Your task to perform on an android device: Open calendar and show me the second week of next month Image 0: 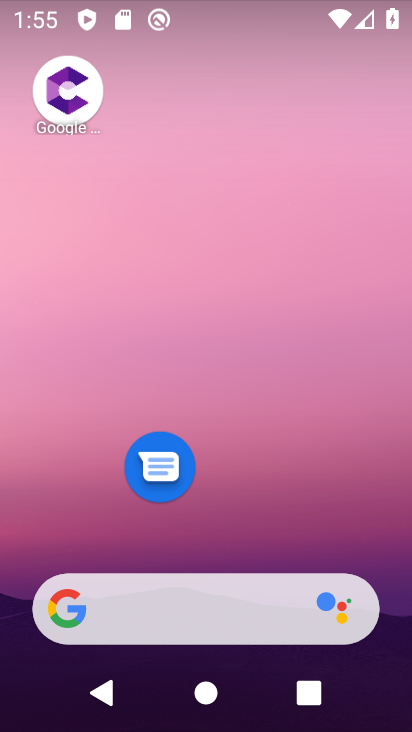
Step 0: drag from (250, 534) to (229, 12)
Your task to perform on an android device: Open calendar and show me the second week of next month Image 1: 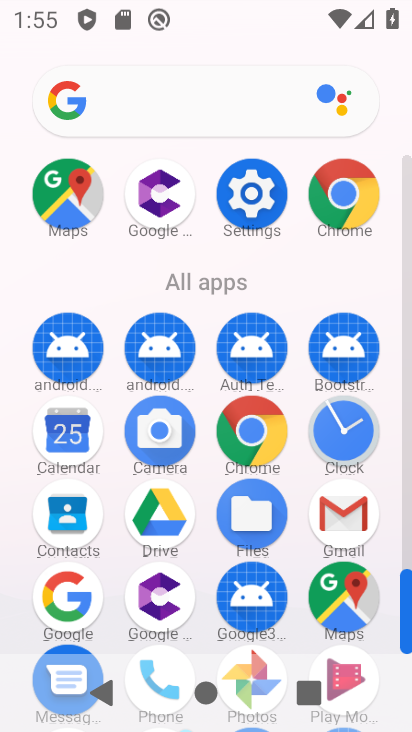
Step 1: click (68, 439)
Your task to perform on an android device: Open calendar and show me the second week of next month Image 2: 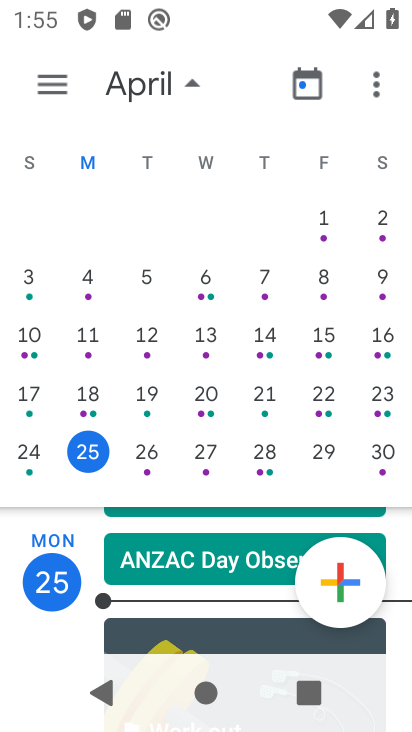
Step 2: drag from (365, 348) to (12, 400)
Your task to perform on an android device: Open calendar and show me the second week of next month Image 3: 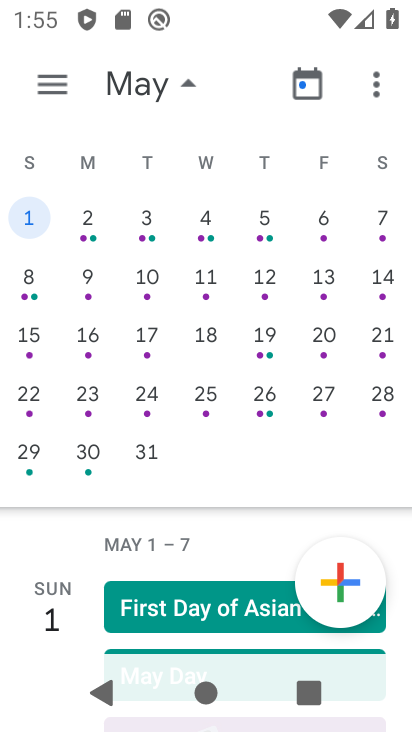
Step 3: click (39, 296)
Your task to perform on an android device: Open calendar and show me the second week of next month Image 4: 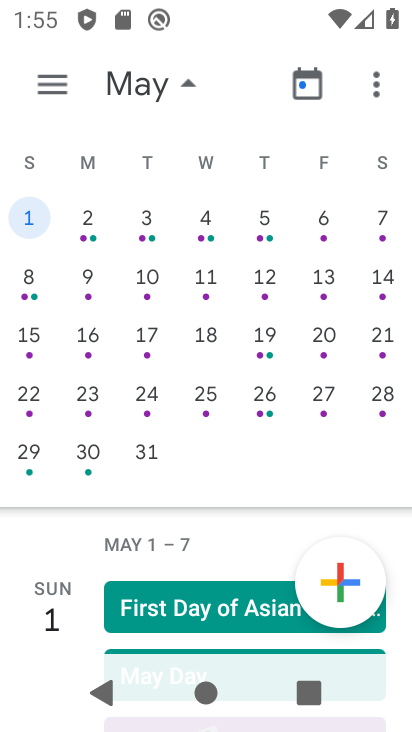
Step 4: click (39, 283)
Your task to perform on an android device: Open calendar and show me the second week of next month Image 5: 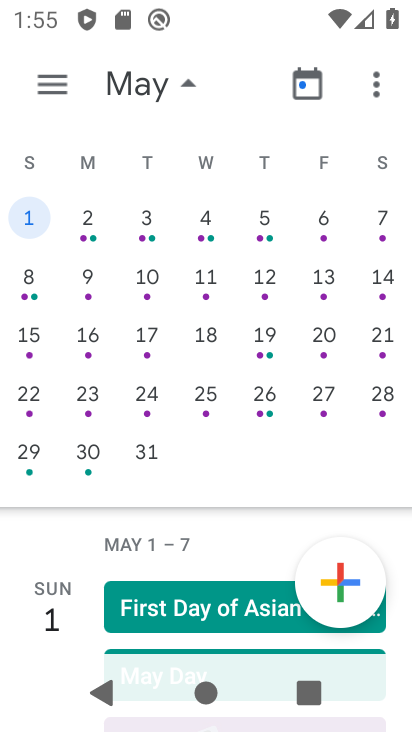
Step 5: click (26, 293)
Your task to perform on an android device: Open calendar and show me the second week of next month Image 6: 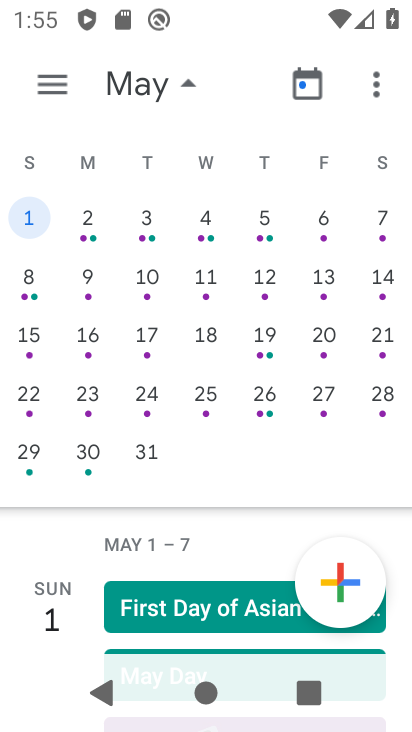
Step 6: click (34, 283)
Your task to perform on an android device: Open calendar and show me the second week of next month Image 7: 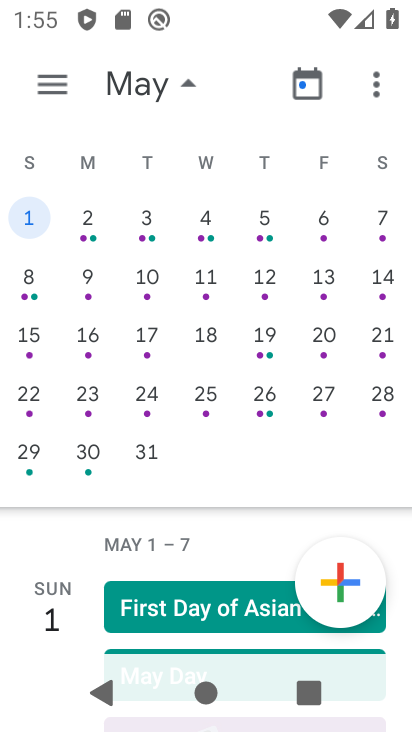
Step 7: click (23, 271)
Your task to perform on an android device: Open calendar and show me the second week of next month Image 8: 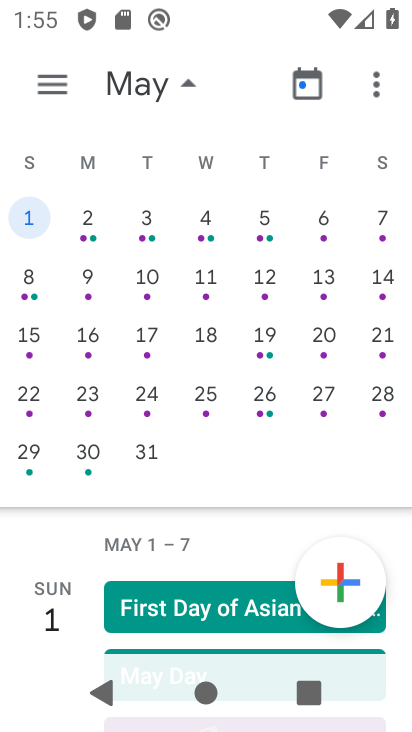
Step 8: click (36, 275)
Your task to perform on an android device: Open calendar and show me the second week of next month Image 9: 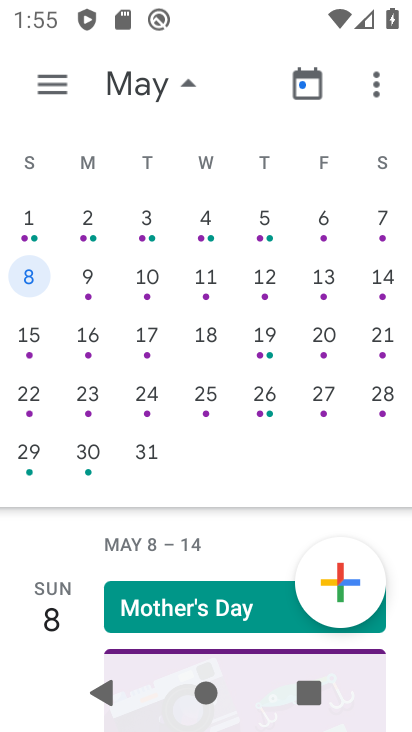
Step 9: task complete